Your task to perform on an android device: toggle improve location accuracy Image 0: 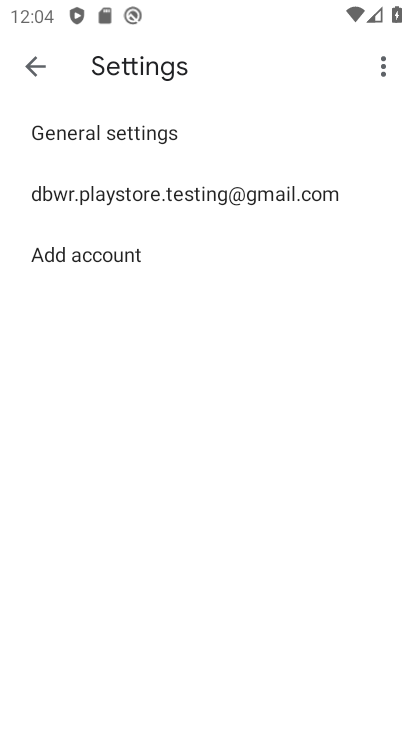
Step 0: press home button
Your task to perform on an android device: toggle improve location accuracy Image 1: 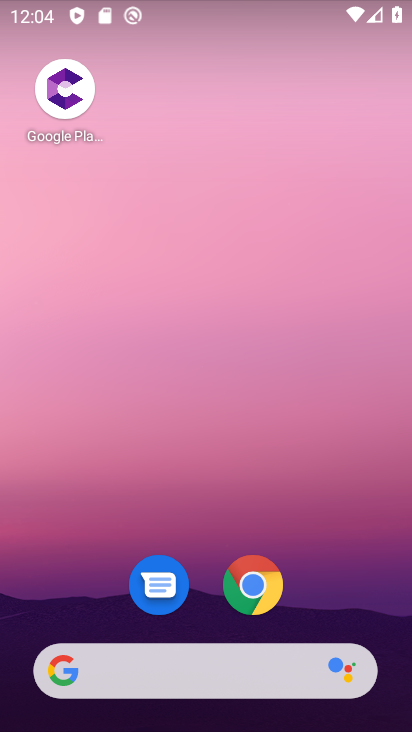
Step 1: drag from (272, 534) to (268, 23)
Your task to perform on an android device: toggle improve location accuracy Image 2: 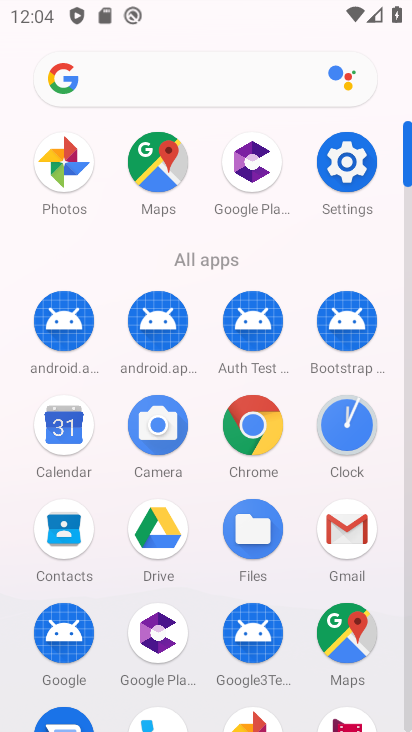
Step 2: click (338, 157)
Your task to perform on an android device: toggle improve location accuracy Image 3: 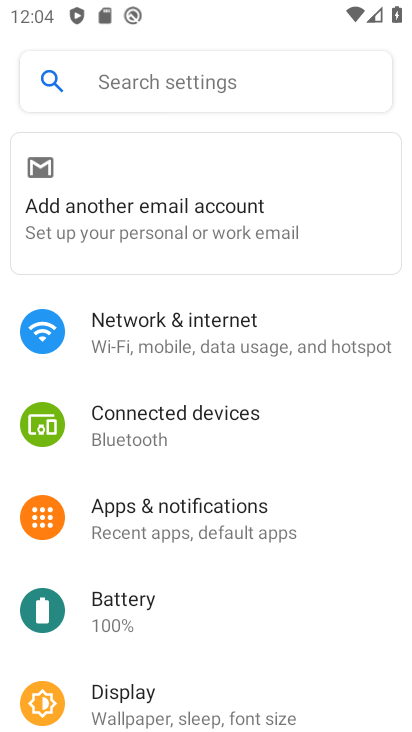
Step 3: drag from (211, 668) to (259, 150)
Your task to perform on an android device: toggle improve location accuracy Image 4: 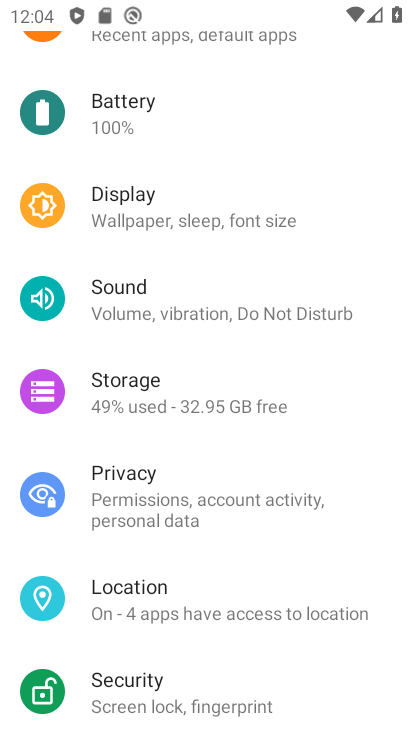
Step 4: click (207, 594)
Your task to perform on an android device: toggle improve location accuracy Image 5: 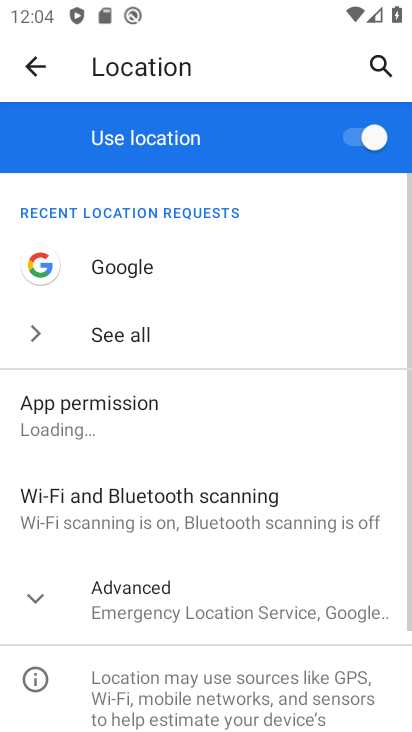
Step 5: drag from (206, 586) to (210, 257)
Your task to perform on an android device: toggle improve location accuracy Image 6: 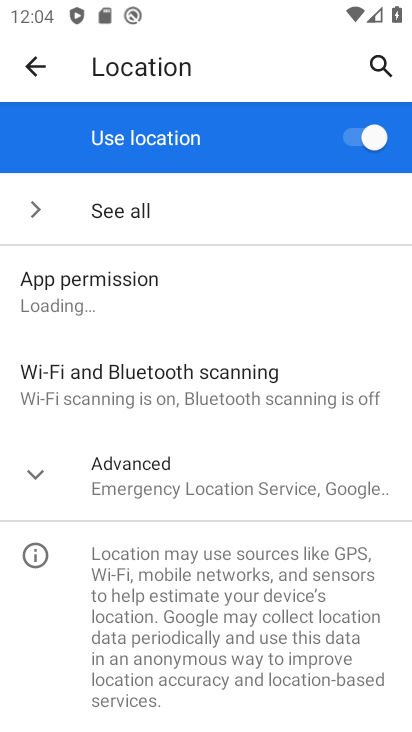
Step 6: click (29, 474)
Your task to perform on an android device: toggle improve location accuracy Image 7: 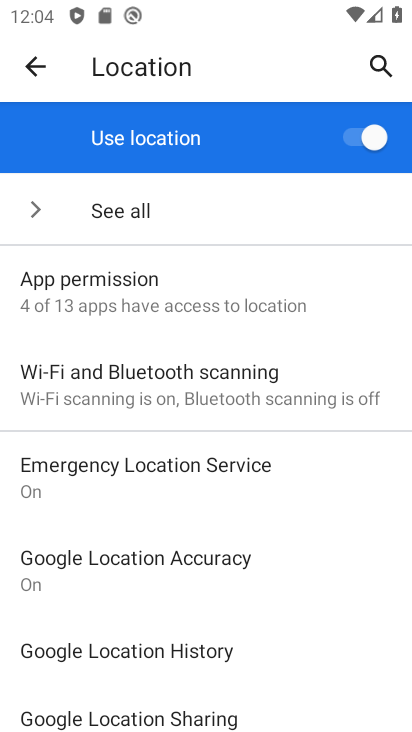
Step 7: click (202, 581)
Your task to perform on an android device: toggle improve location accuracy Image 8: 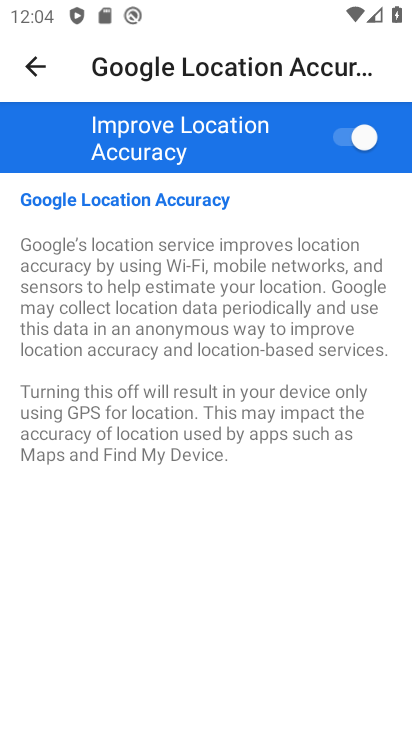
Step 8: click (360, 135)
Your task to perform on an android device: toggle improve location accuracy Image 9: 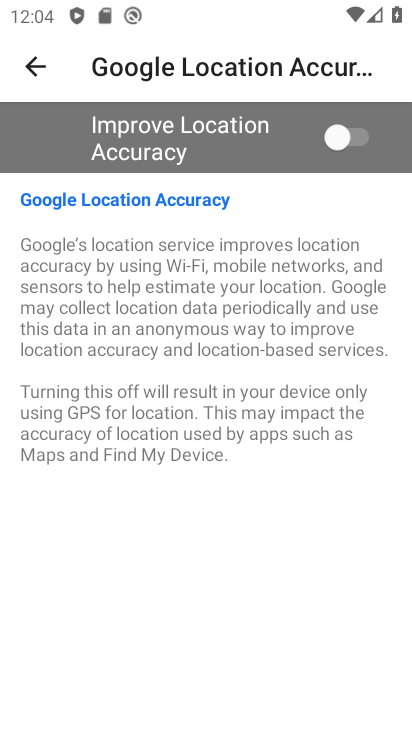
Step 9: task complete